Your task to perform on an android device: open wifi settings Image 0: 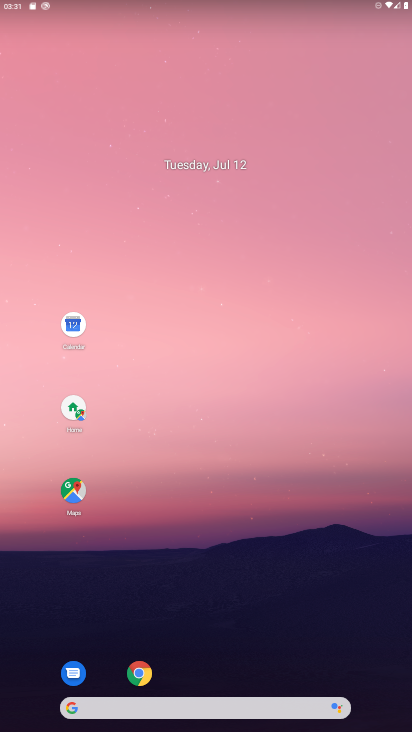
Step 0: drag from (267, 663) to (263, 399)
Your task to perform on an android device: open wifi settings Image 1: 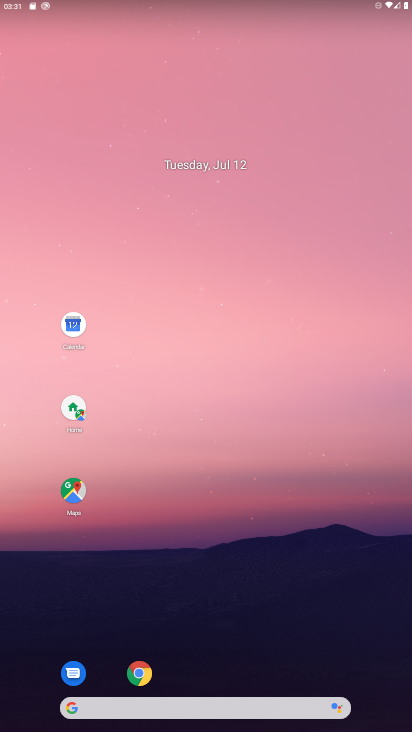
Step 1: drag from (248, 554) to (287, 3)
Your task to perform on an android device: open wifi settings Image 2: 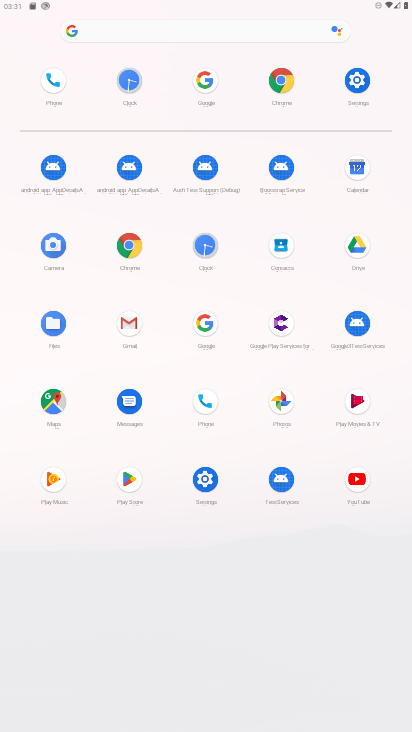
Step 2: click (352, 70)
Your task to perform on an android device: open wifi settings Image 3: 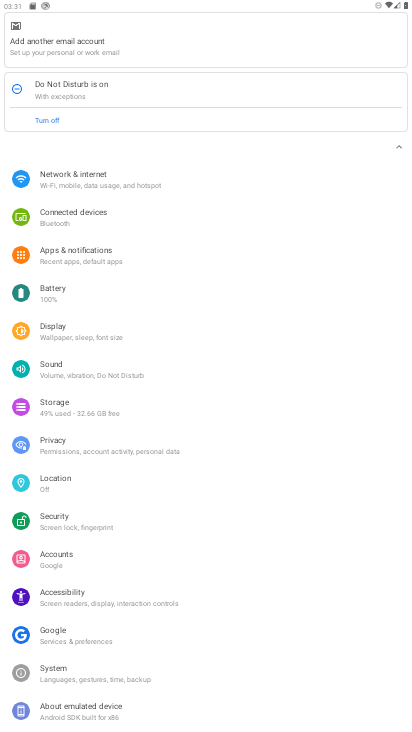
Step 3: click (68, 181)
Your task to perform on an android device: open wifi settings Image 4: 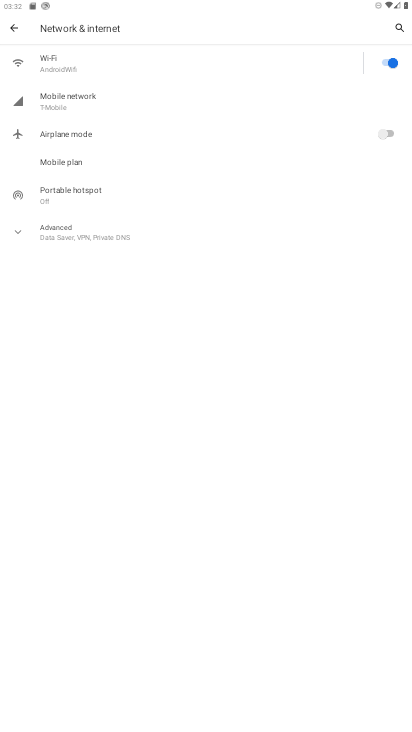
Step 4: click (77, 60)
Your task to perform on an android device: open wifi settings Image 5: 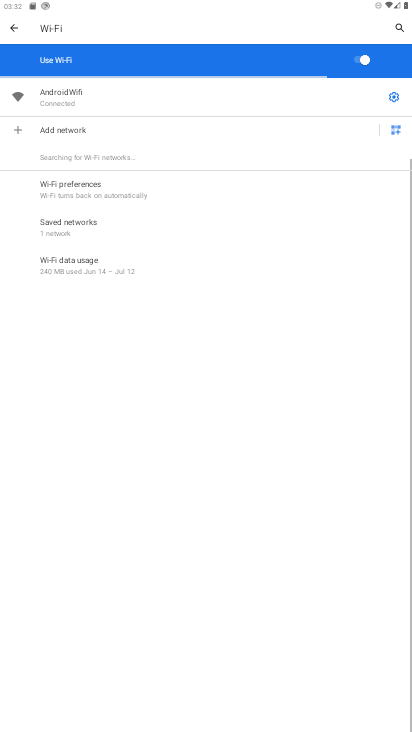
Step 5: task complete